Your task to perform on an android device: Check the news Image 0: 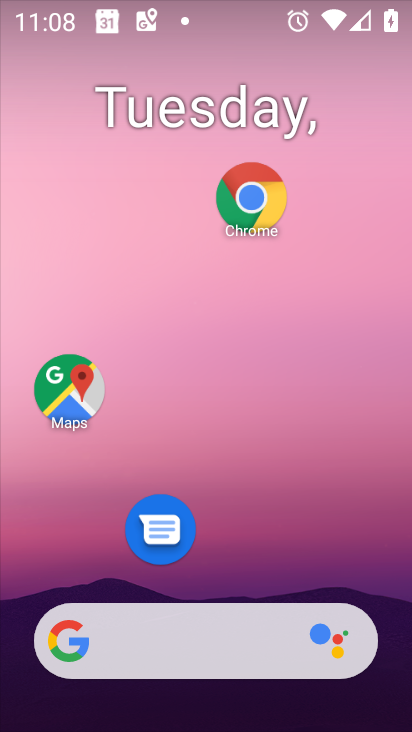
Step 0: click (237, 212)
Your task to perform on an android device: Check the news Image 1: 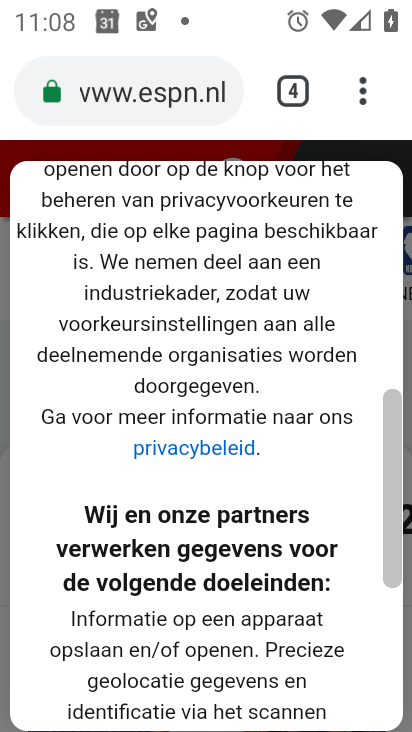
Step 1: click (371, 89)
Your task to perform on an android device: Check the news Image 2: 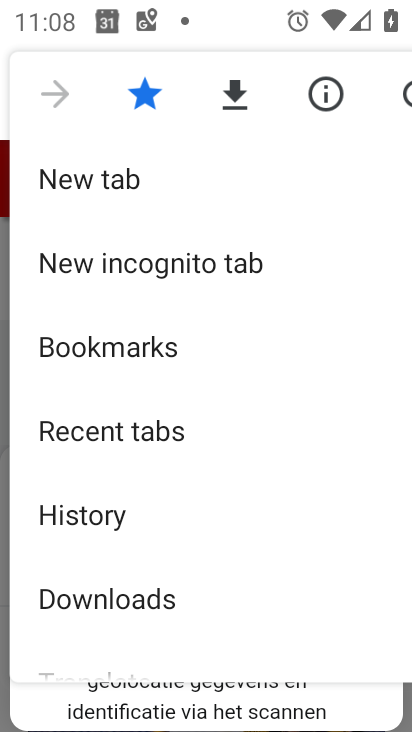
Step 2: click (47, 35)
Your task to perform on an android device: Check the news Image 3: 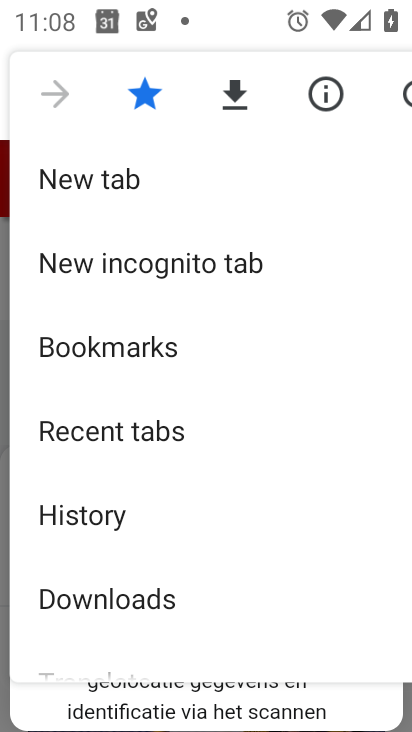
Step 3: click (4, 133)
Your task to perform on an android device: Check the news Image 4: 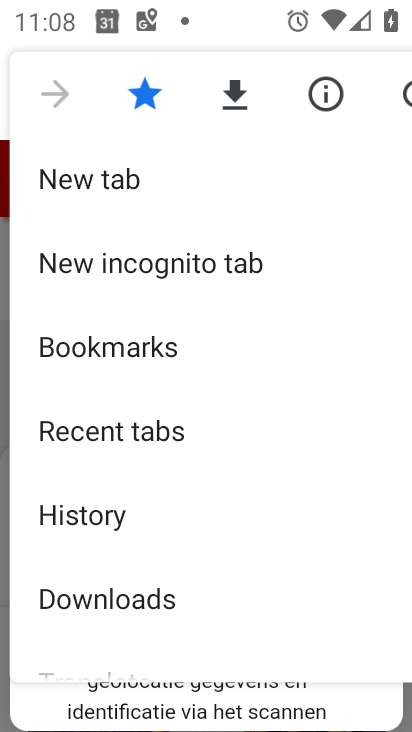
Step 4: click (4, 133)
Your task to perform on an android device: Check the news Image 5: 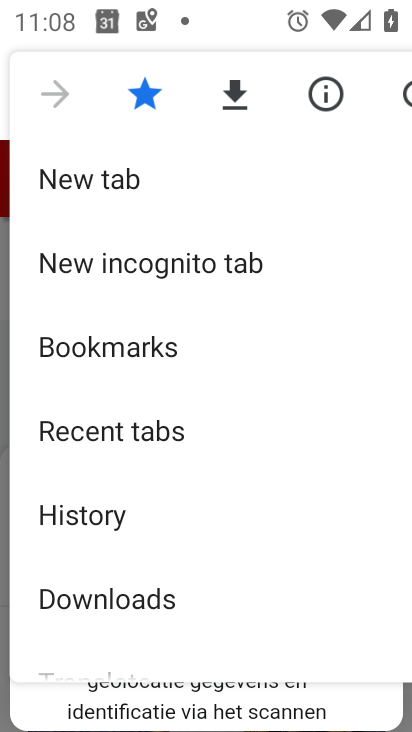
Step 5: press back button
Your task to perform on an android device: Check the news Image 6: 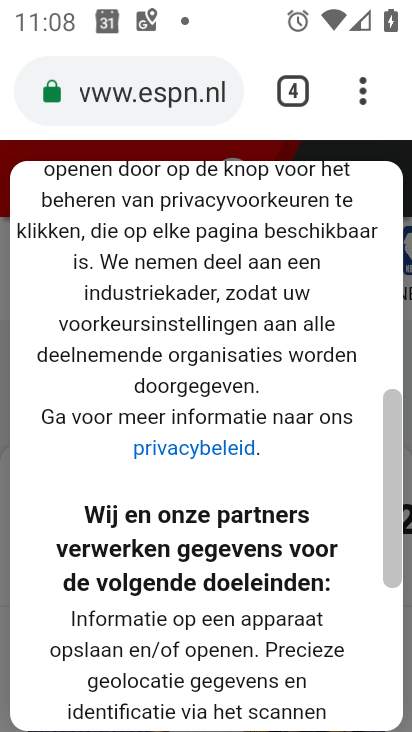
Step 6: click (368, 101)
Your task to perform on an android device: Check the news Image 7: 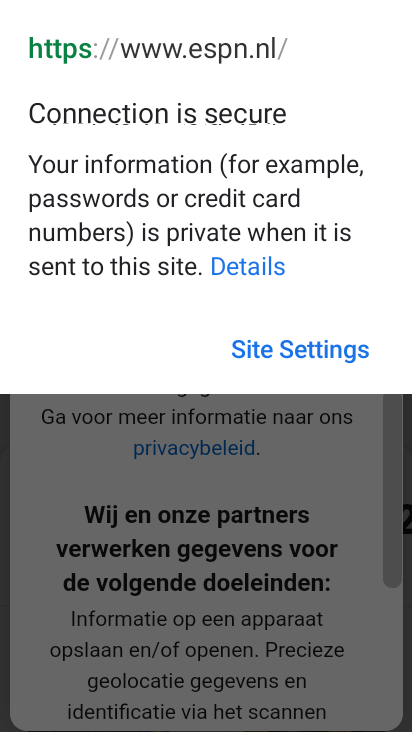
Step 7: click (307, 441)
Your task to perform on an android device: Check the news Image 8: 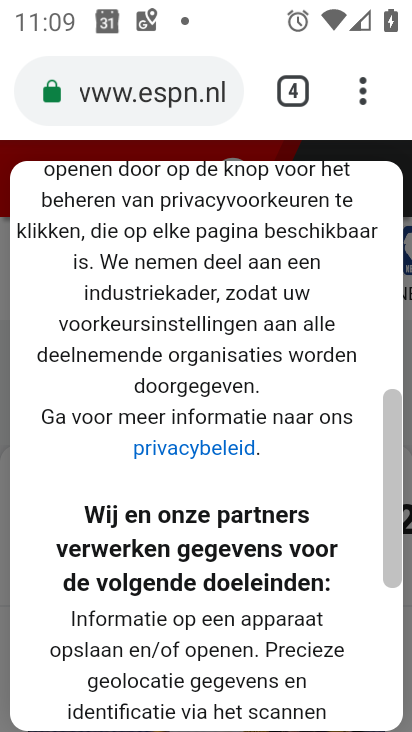
Step 8: click (354, 90)
Your task to perform on an android device: Check the news Image 9: 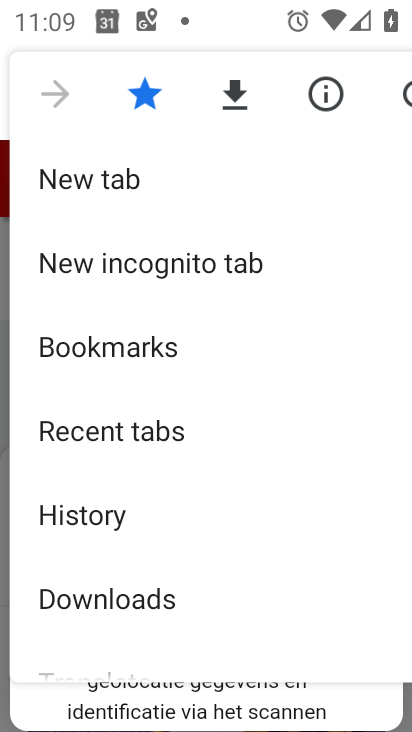
Step 9: click (205, 162)
Your task to perform on an android device: Check the news Image 10: 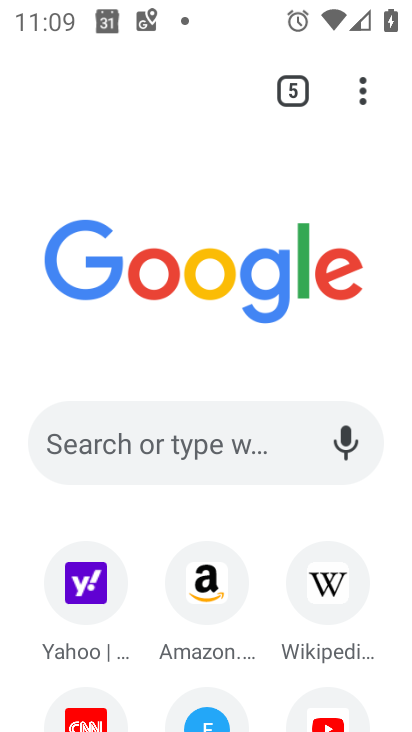
Step 10: drag from (153, 659) to (197, 310)
Your task to perform on an android device: Check the news Image 11: 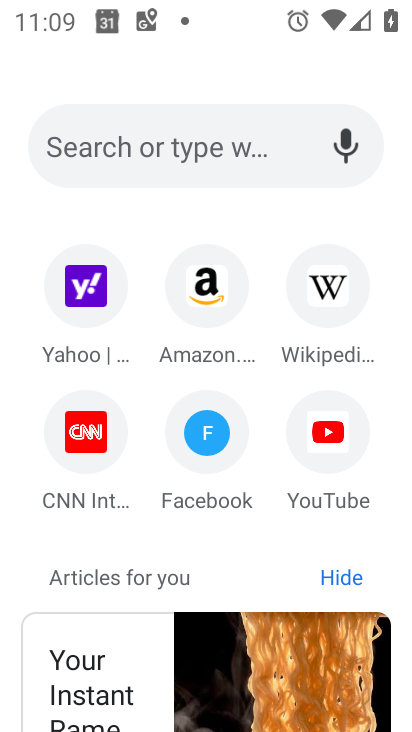
Step 11: drag from (177, 640) to (219, 255)
Your task to perform on an android device: Check the news Image 12: 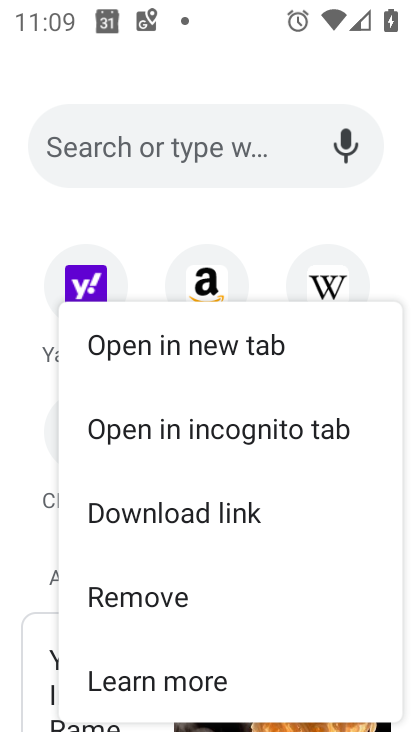
Step 12: click (9, 525)
Your task to perform on an android device: Check the news Image 13: 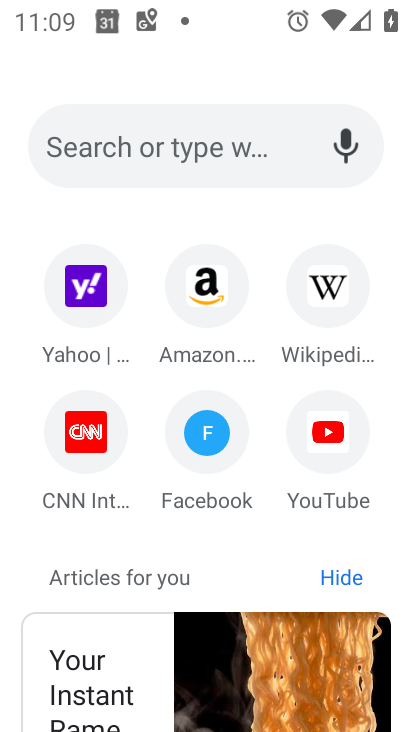
Step 13: task complete